Your task to perform on an android device: delete location history Image 0: 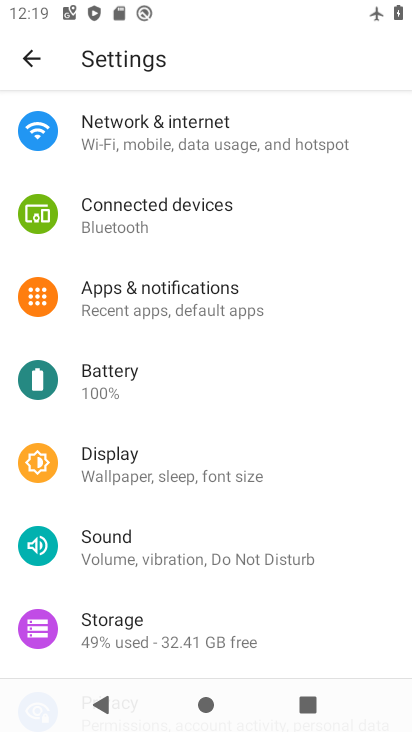
Step 0: press home button
Your task to perform on an android device: delete location history Image 1: 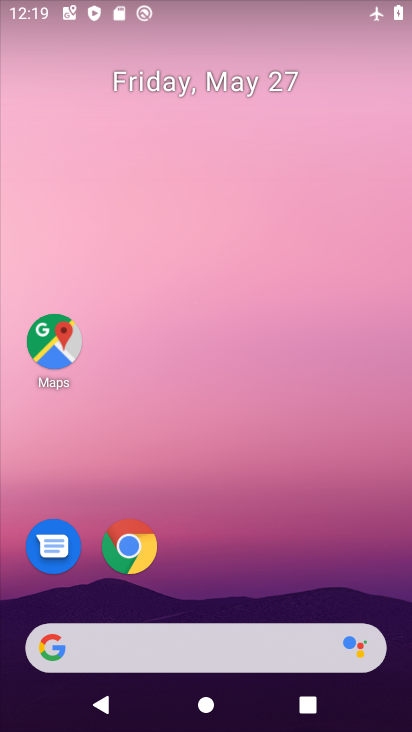
Step 1: drag from (238, 561) to (209, 198)
Your task to perform on an android device: delete location history Image 2: 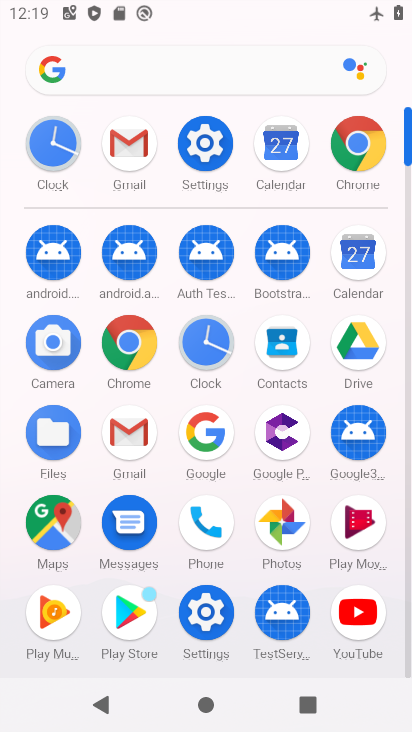
Step 2: click (205, 145)
Your task to perform on an android device: delete location history Image 3: 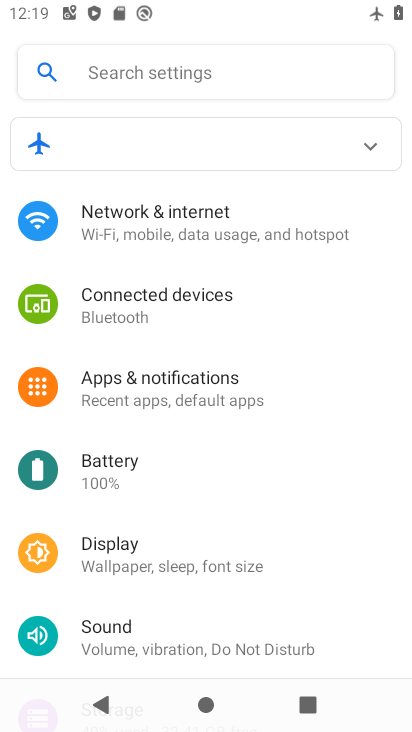
Step 3: drag from (185, 504) to (166, 218)
Your task to perform on an android device: delete location history Image 4: 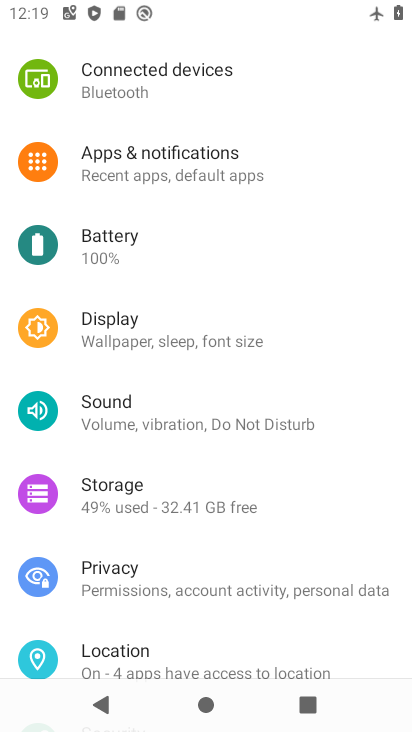
Step 4: click (111, 648)
Your task to perform on an android device: delete location history Image 5: 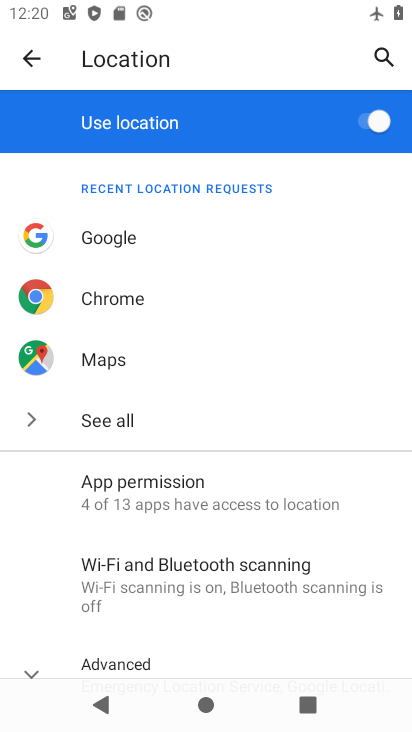
Step 5: drag from (152, 510) to (113, 252)
Your task to perform on an android device: delete location history Image 6: 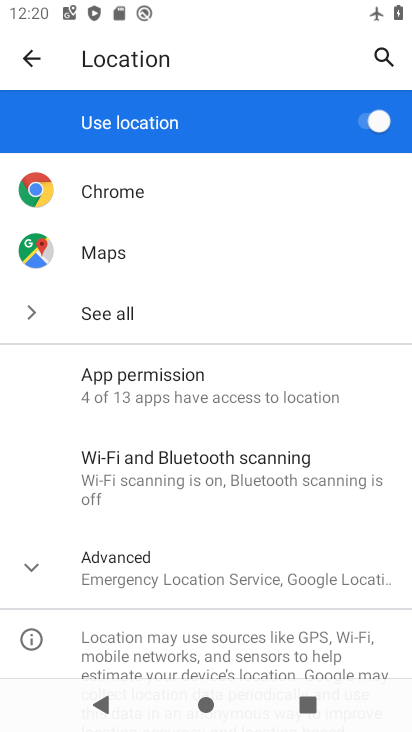
Step 6: click (58, 564)
Your task to perform on an android device: delete location history Image 7: 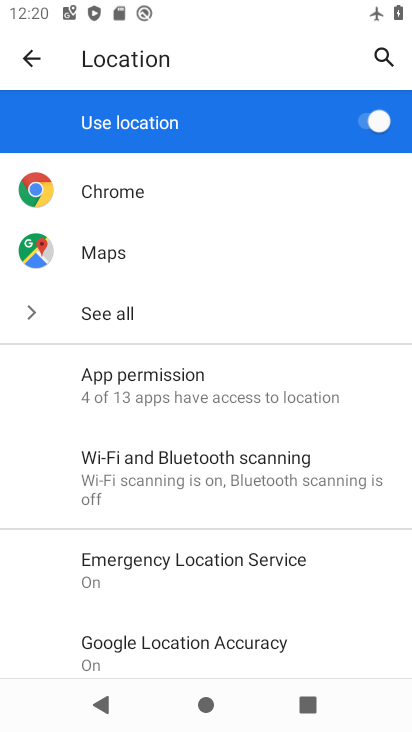
Step 7: drag from (271, 581) to (270, 206)
Your task to perform on an android device: delete location history Image 8: 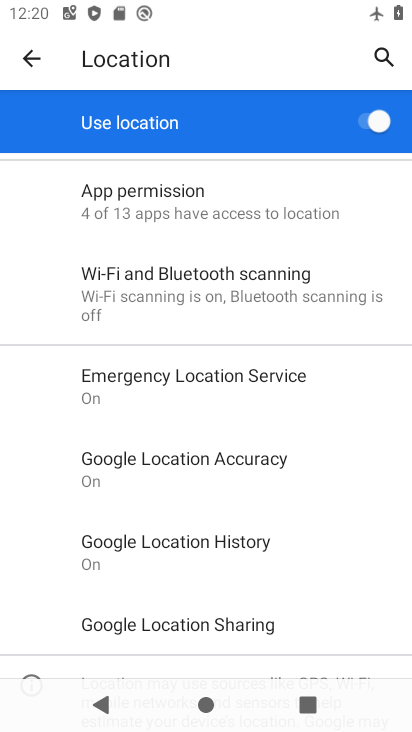
Step 8: drag from (262, 554) to (278, 328)
Your task to perform on an android device: delete location history Image 9: 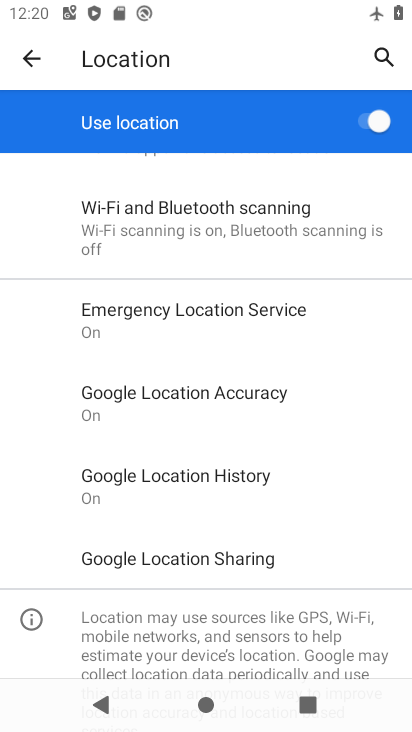
Step 9: click (191, 470)
Your task to perform on an android device: delete location history Image 10: 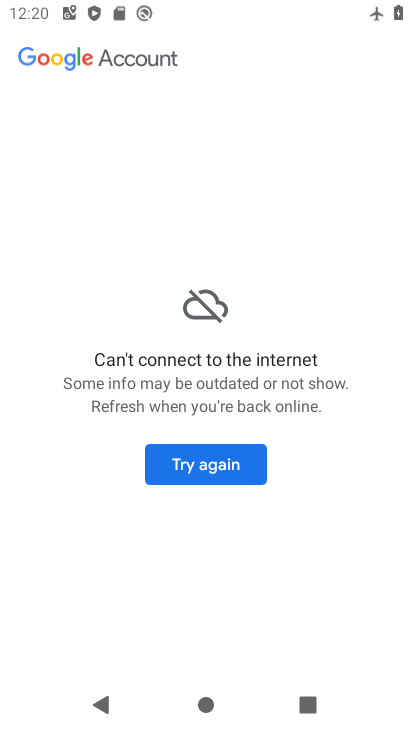
Step 10: task complete